Your task to perform on an android device: turn on translation in the chrome app Image 0: 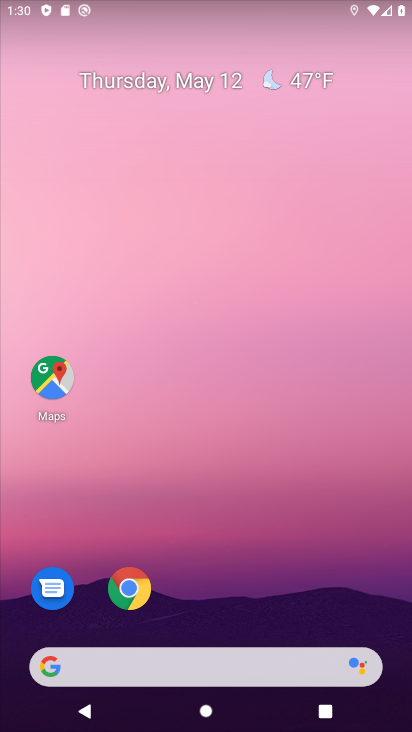
Step 0: drag from (392, 653) to (318, 76)
Your task to perform on an android device: turn on translation in the chrome app Image 1: 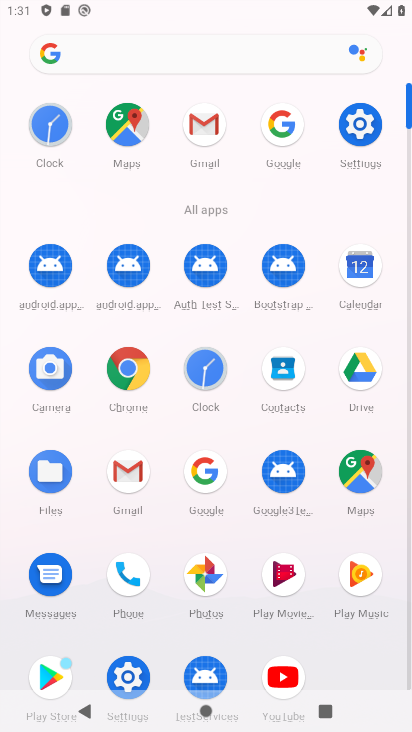
Step 1: click (155, 368)
Your task to perform on an android device: turn on translation in the chrome app Image 2: 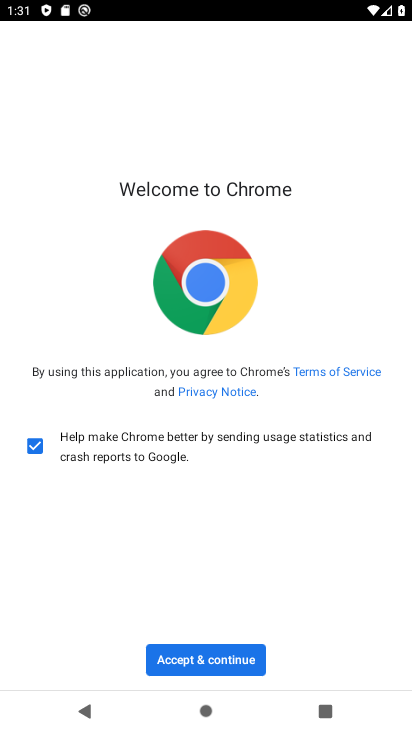
Step 2: click (264, 663)
Your task to perform on an android device: turn on translation in the chrome app Image 3: 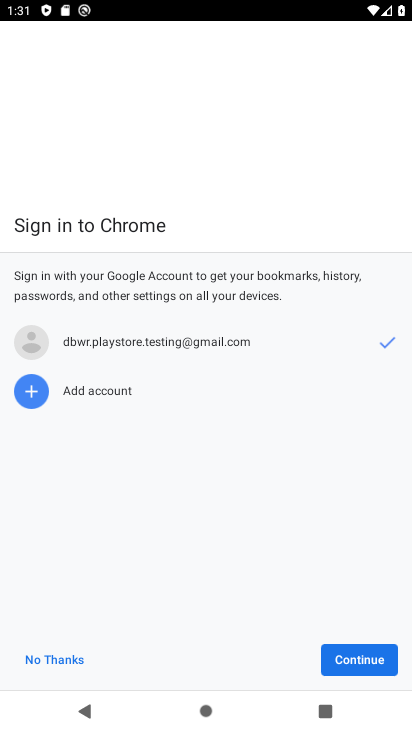
Step 3: click (365, 663)
Your task to perform on an android device: turn on translation in the chrome app Image 4: 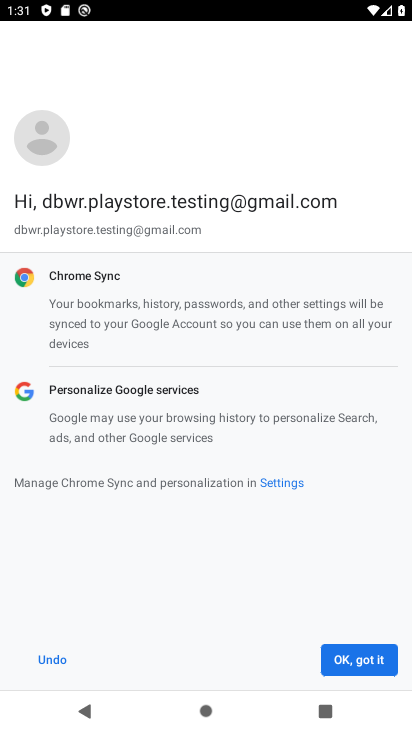
Step 4: click (363, 660)
Your task to perform on an android device: turn on translation in the chrome app Image 5: 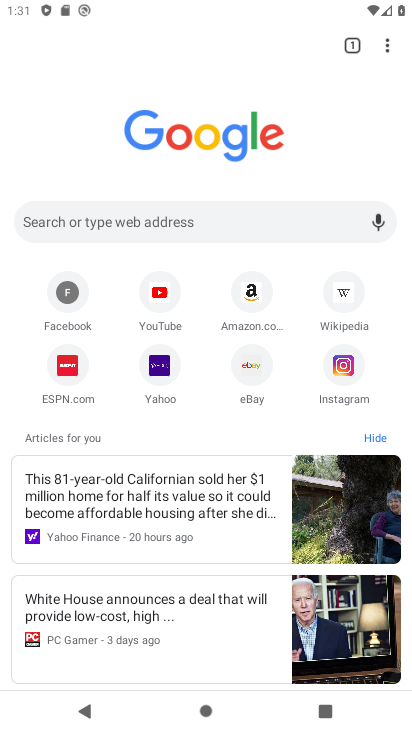
Step 5: click (392, 42)
Your task to perform on an android device: turn on translation in the chrome app Image 6: 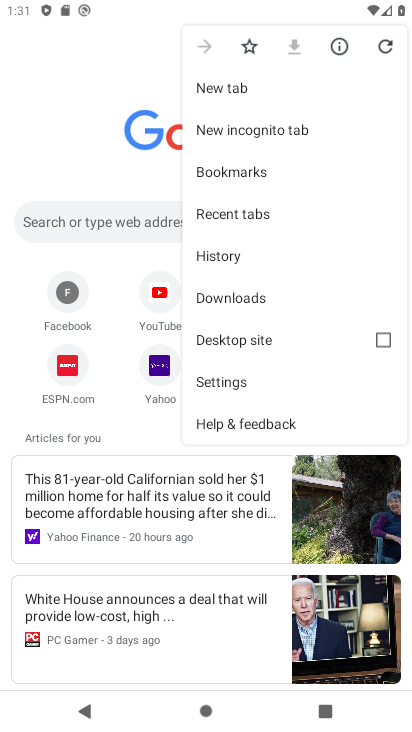
Step 6: click (228, 394)
Your task to perform on an android device: turn on translation in the chrome app Image 7: 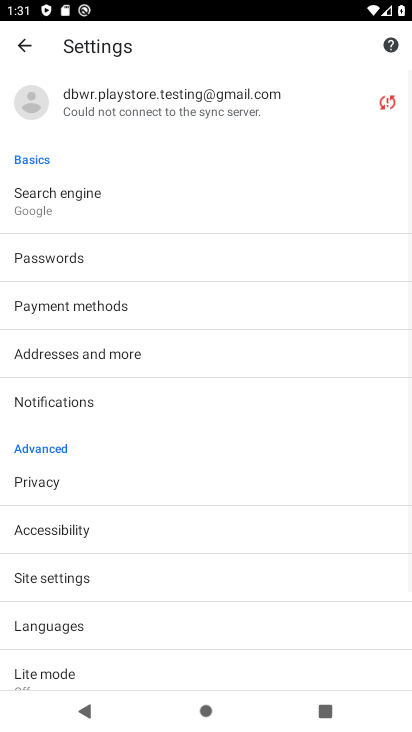
Step 7: click (146, 617)
Your task to perform on an android device: turn on translation in the chrome app Image 8: 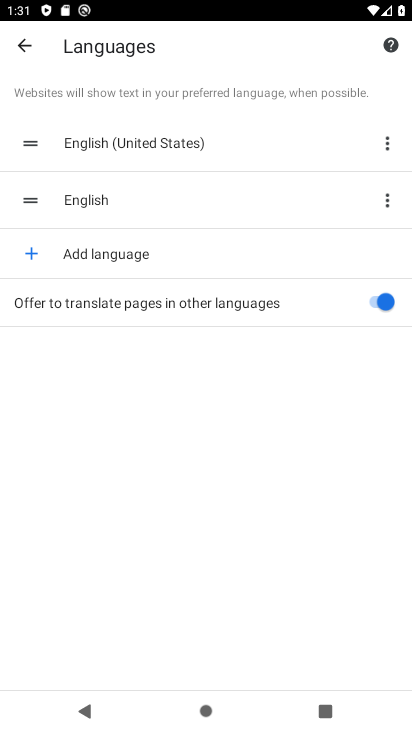
Step 8: task complete